Your task to perform on an android device: turn on the 12-hour format for clock Image 0: 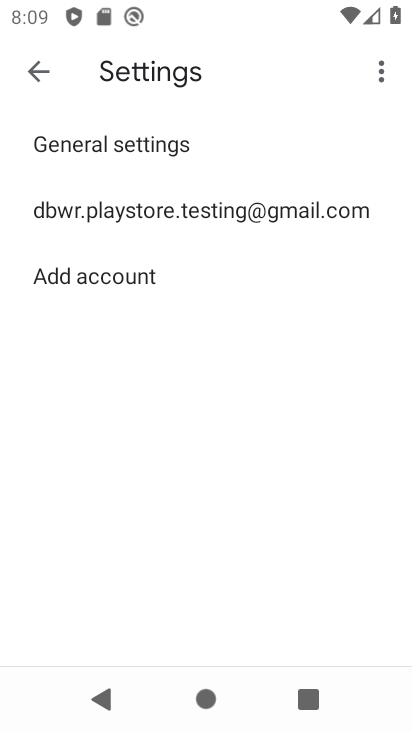
Step 0: press home button
Your task to perform on an android device: turn on the 12-hour format for clock Image 1: 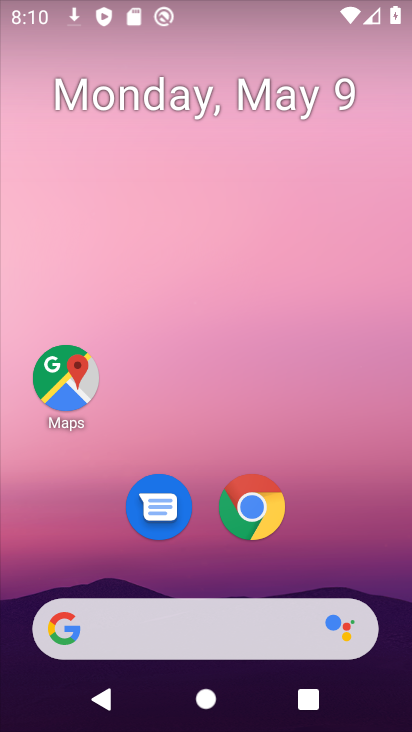
Step 1: drag from (224, 581) to (165, 14)
Your task to perform on an android device: turn on the 12-hour format for clock Image 2: 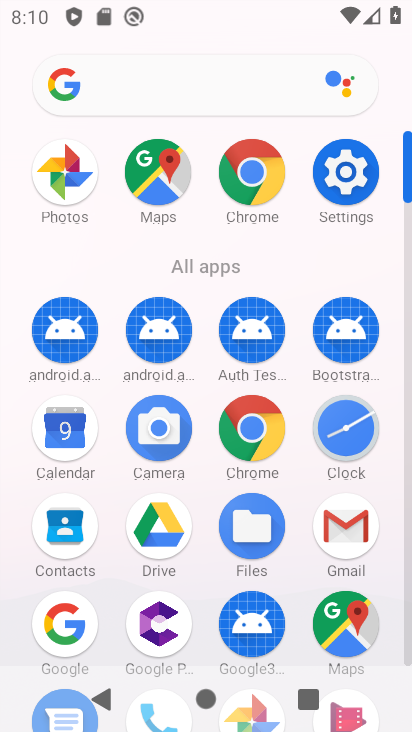
Step 2: click (356, 432)
Your task to perform on an android device: turn on the 12-hour format for clock Image 3: 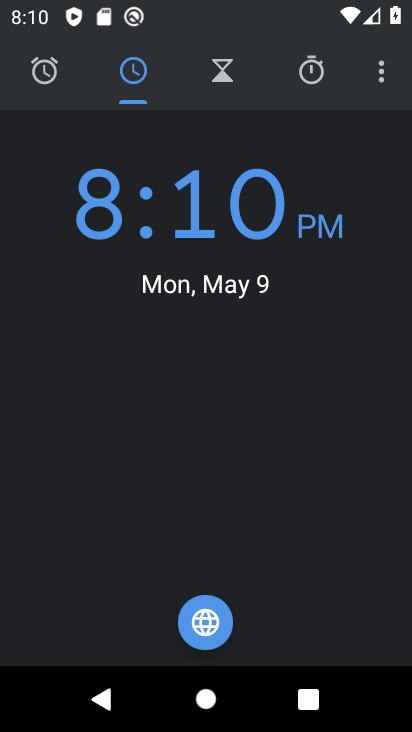
Step 3: click (377, 73)
Your task to perform on an android device: turn on the 12-hour format for clock Image 4: 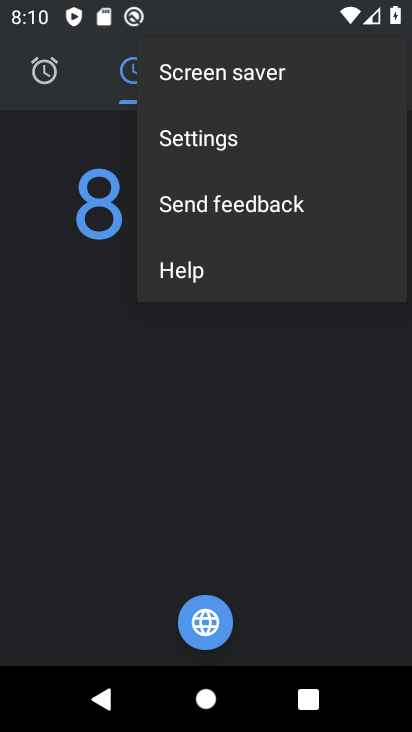
Step 4: click (185, 146)
Your task to perform on an android device: turn on the 12-hour format for clock Image 5: 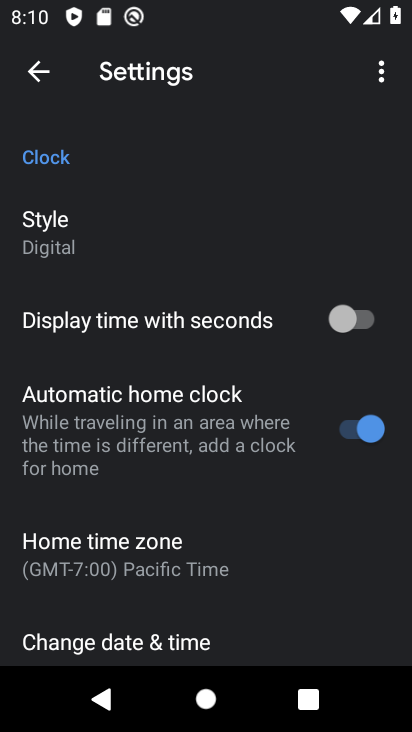
Step 5: click (179, 637)
Your task to perform on an android device: turn on the 12-hour format for clock Image 6: 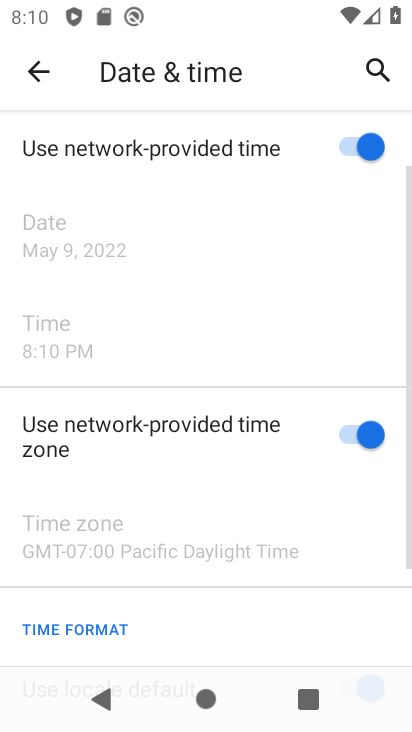
Step 6: task complete